Your task to perform on an android device: change notification settings in the gmail app Image 0: 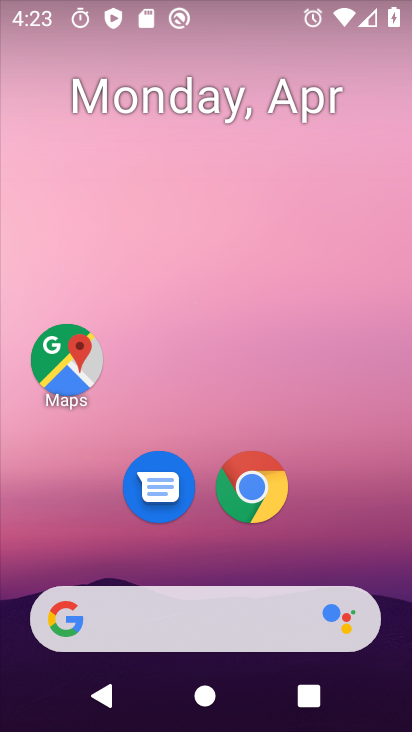
Step 0: drag from (356, 548) to (361, 129)
Your task to perform on an android device: change notification settings in the gmail app Image 1: 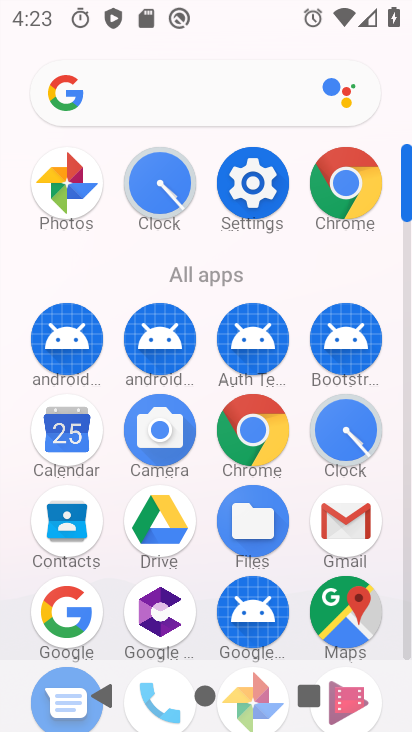
Step 1: click (372, 527)
Your task to perform on an android device: change notification settings in the gmail app Image 2: 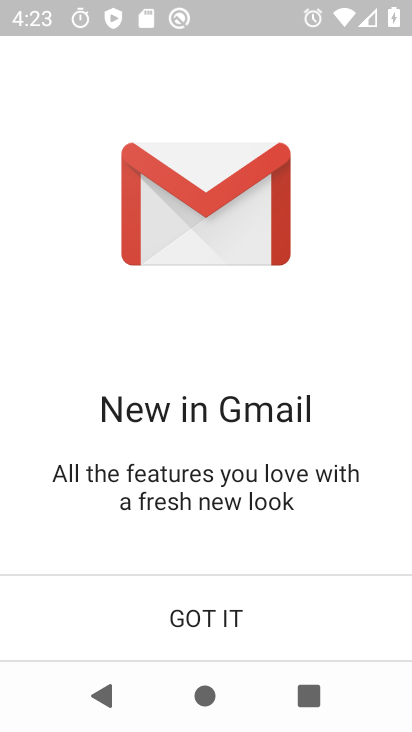
Step 2: click (369, 606)
Your task to perform on an android device: change notification settings in the gmail app Image 3: 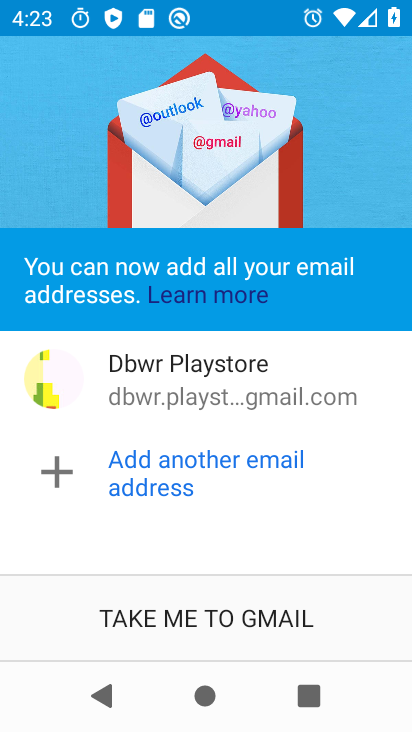
Step 3: click (317, 634)
Your task to perform on an android device: change notification settings in the gmail app Image 4: 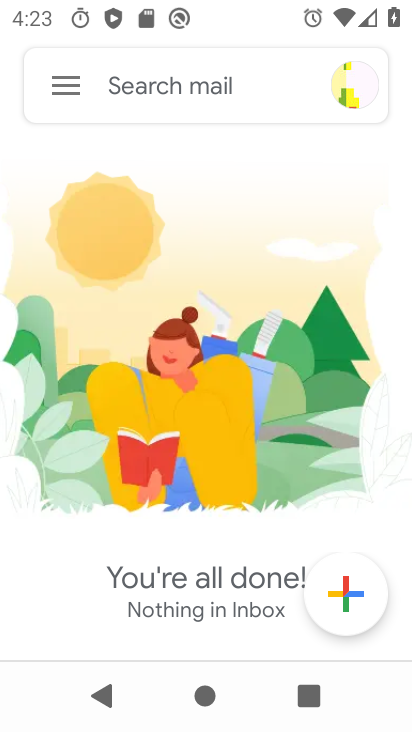
Step 4: click (72, 96)
Your task to perform on an android device: change notification settings in the gmail app Image 5: 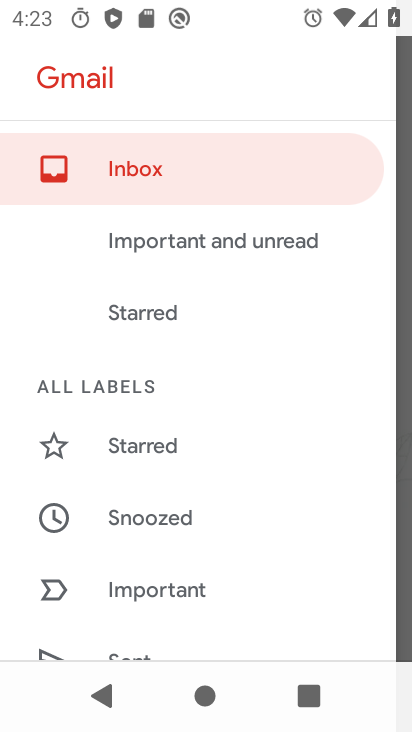
Step 5: drag from (306, 508) to (306, 321)
Your task to perform on an android device: change notification settings in the gmail app Image 6: 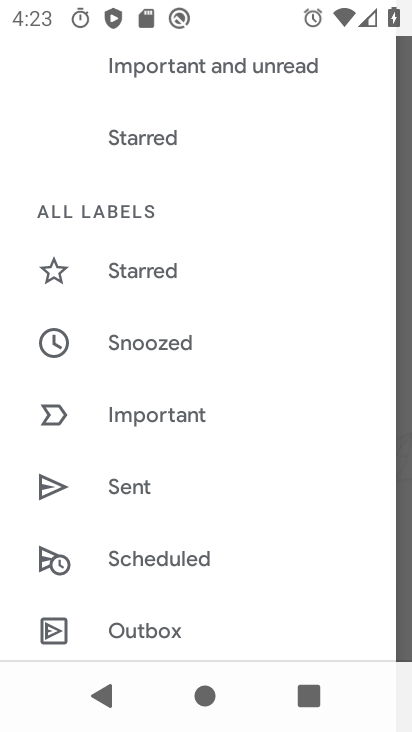
Step 6: drag from (317, 538) to (318, 232)
Your task to perform on an android device: change notification settings in the gmail app Image 7: 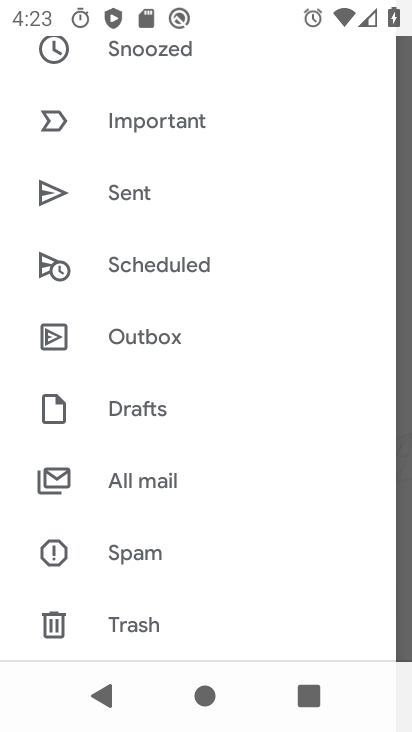
Step 7: drag from (322, 522) to (321, 232)
Your task to perform on an android device: change notification settings in the gmail app Image 8: 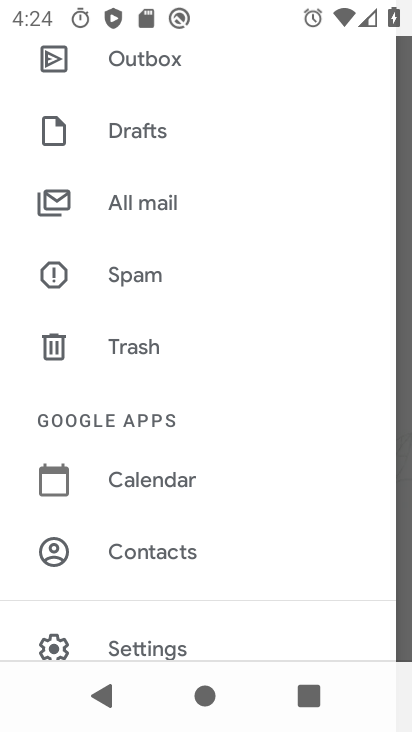
Step 8: drag from (309, 541) to (299, 327)
Your task to perform on an android device: change notification settings in the gmail app Image 9: 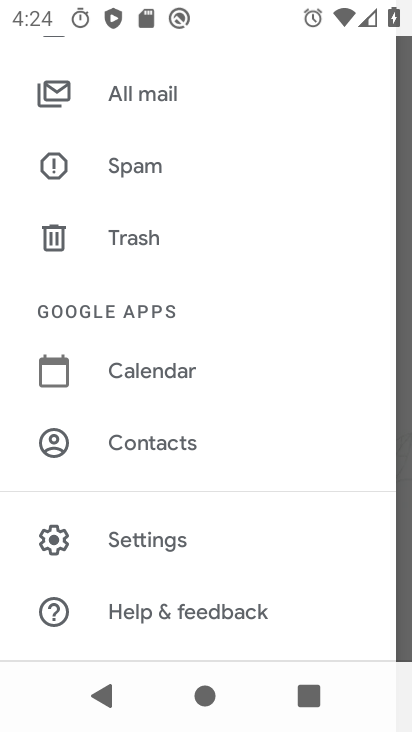
Step 9: click (181, 549)
Your task to perform on an android device: change notification settings in the gmail app Image 10: 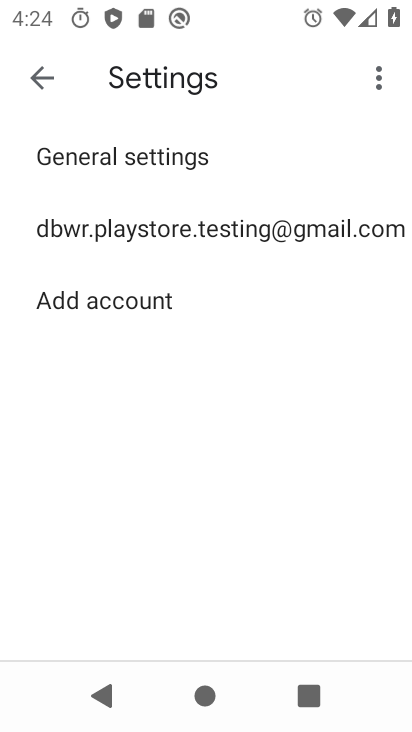
Step 10: click (240, 225)
Your task to perform on an android device: change notification settings in the gmail app Image 11: 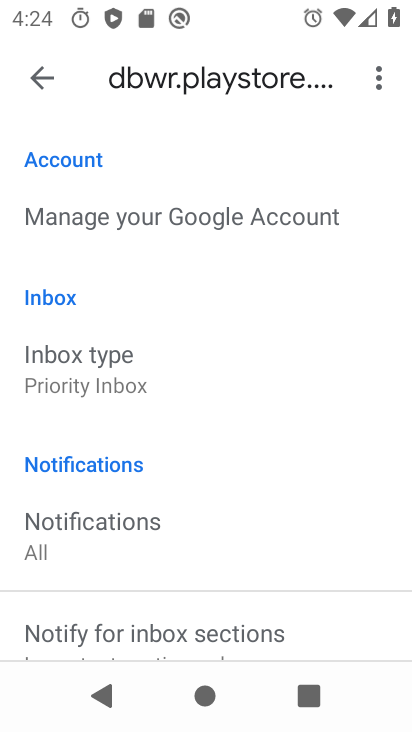
Step 11: drag from (299, 552) to (308, 313)
Your task to perform on an android device: change notification settings in the gmail app Image 12: 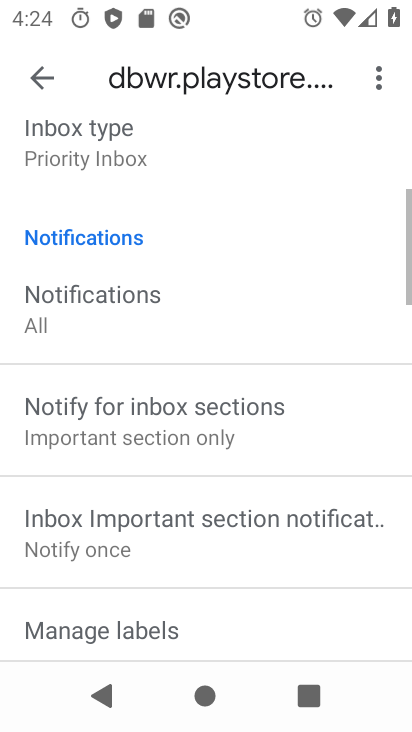
Step 12: drag from (338, 575) to (333, 369)
Your task to perform on an android device: change notification settings in the gmail app Image 13: 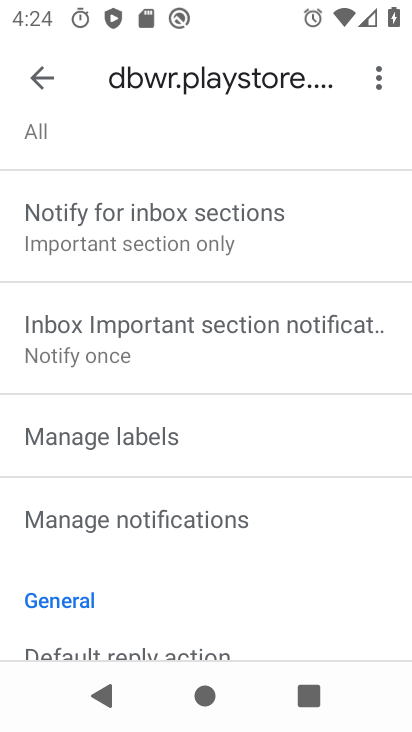
Step 13: drag from (325, 563) to (338, 365)
Your task to perform on an android device: change notification settings in the gmail app Image 14: 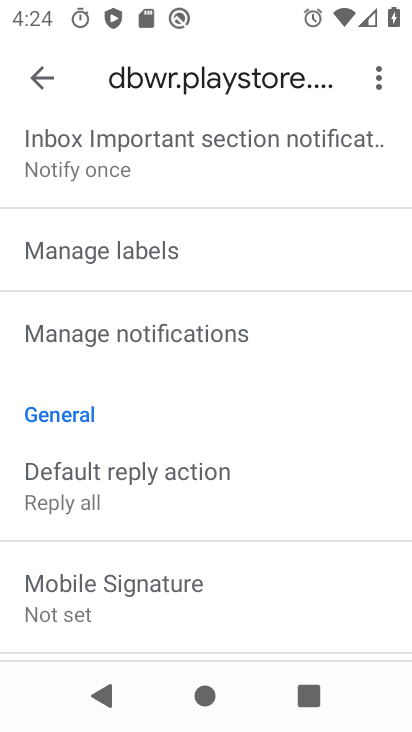
Step 14: click (198, 327)
Your task to perform on an android device: change notification settings in the gmail app Image 15: 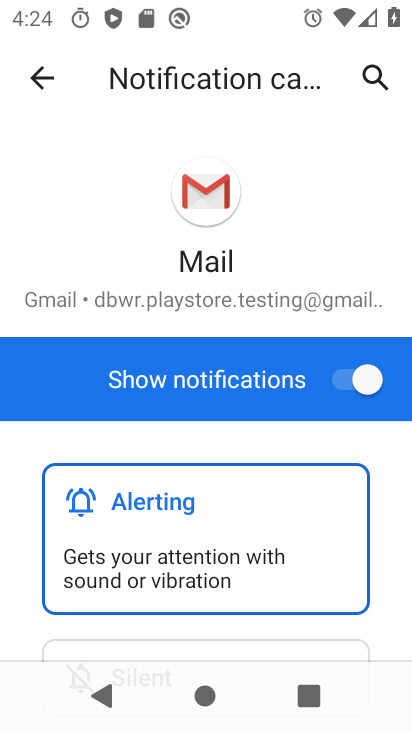
Step 15: click (343, 382)
Your task to perform on an android device: change notification settings in the gmail app Image 16: 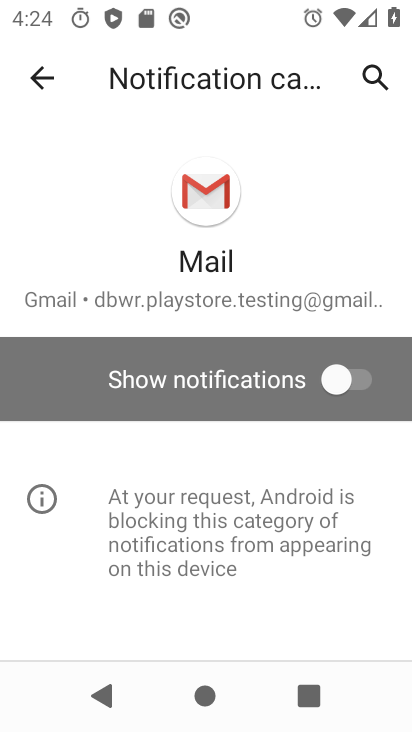
Step 16: task complete